Your task to perform on an android device: Clear the cart on ebay. Search for corsair k70 on ebay, select the first entry, add it to the cart, then select checkout. Image 0: 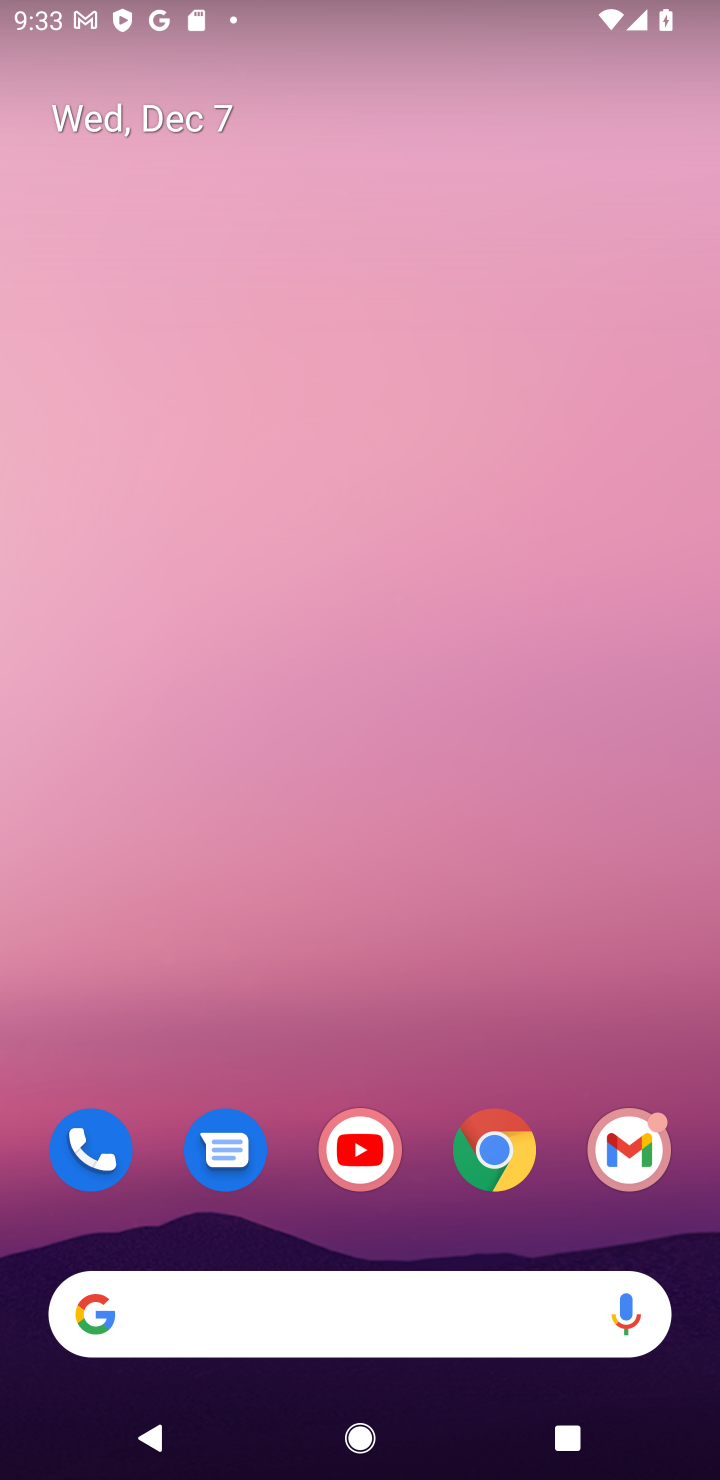
Step 0: click (473, 1133)
Your task to perform on an android device: Clear the cart on ebay. Search for corsair k70 on ebay, select the first entry, add it to the cart, then select checkout. Image 1: 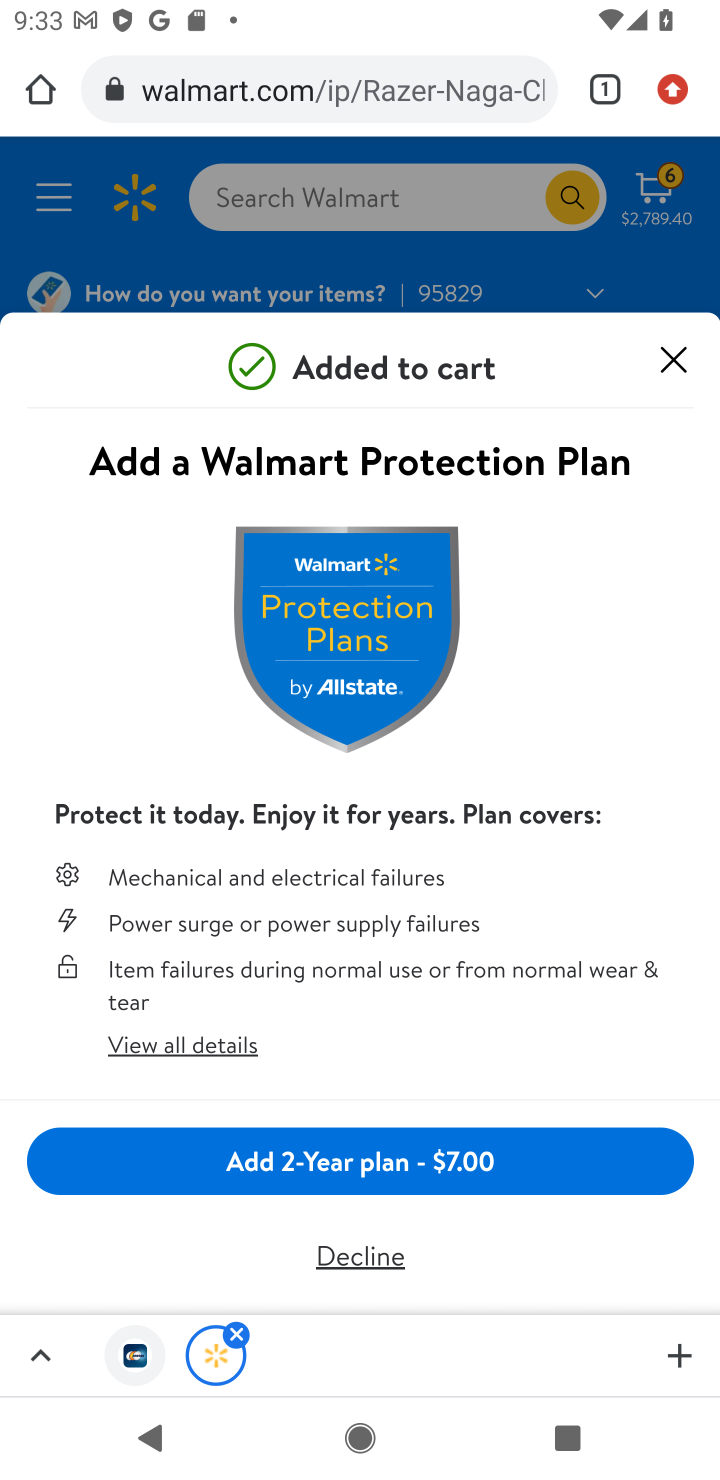
Step 1: click (679, 349)
Your task to perform on an android device: Clear the cart on ebay. Search for corsair k70 on ebay, select the first entry, add it to the cart, then select checkout. Image 2: 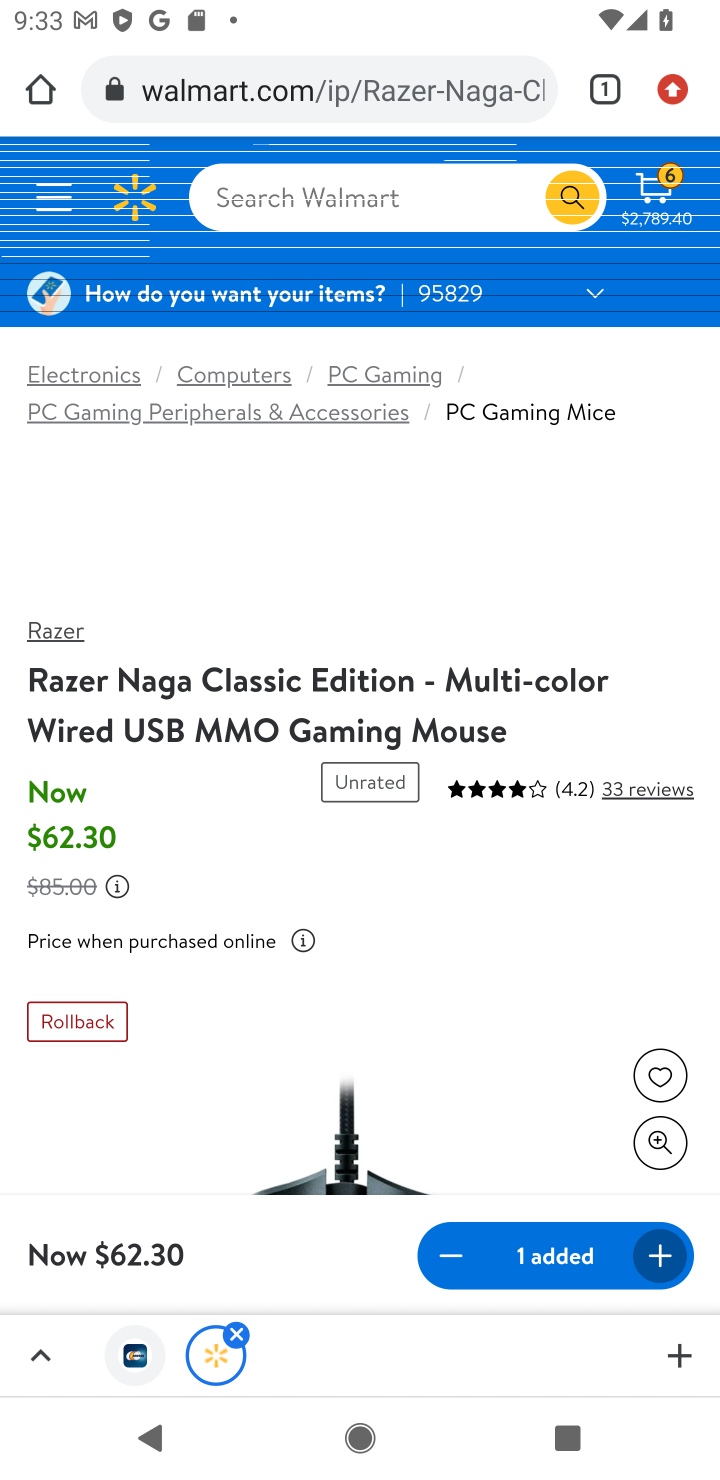
Step 2: click (350, 96)
Your task to perform on an android device: Clear the cart on ebay. Search for corsair k70 on ebay, select the first entry, add it to the cart, then select checkout. Image 3: 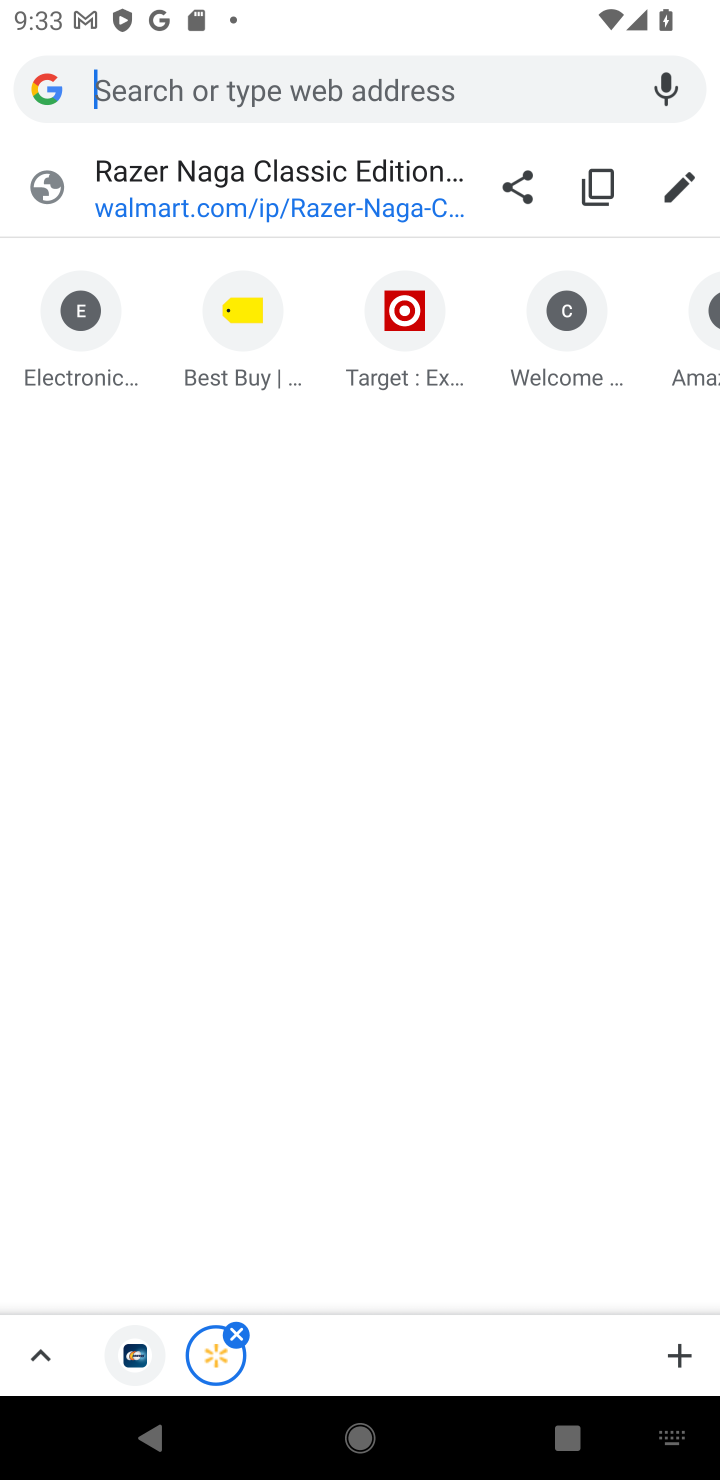
Step 3: type "ebay"
Your task to perform on an android device: Clear the cart on ebay. Search for corsair k70 on ebay, select the first entry, add it to the cart, then select checkout. Image 4: 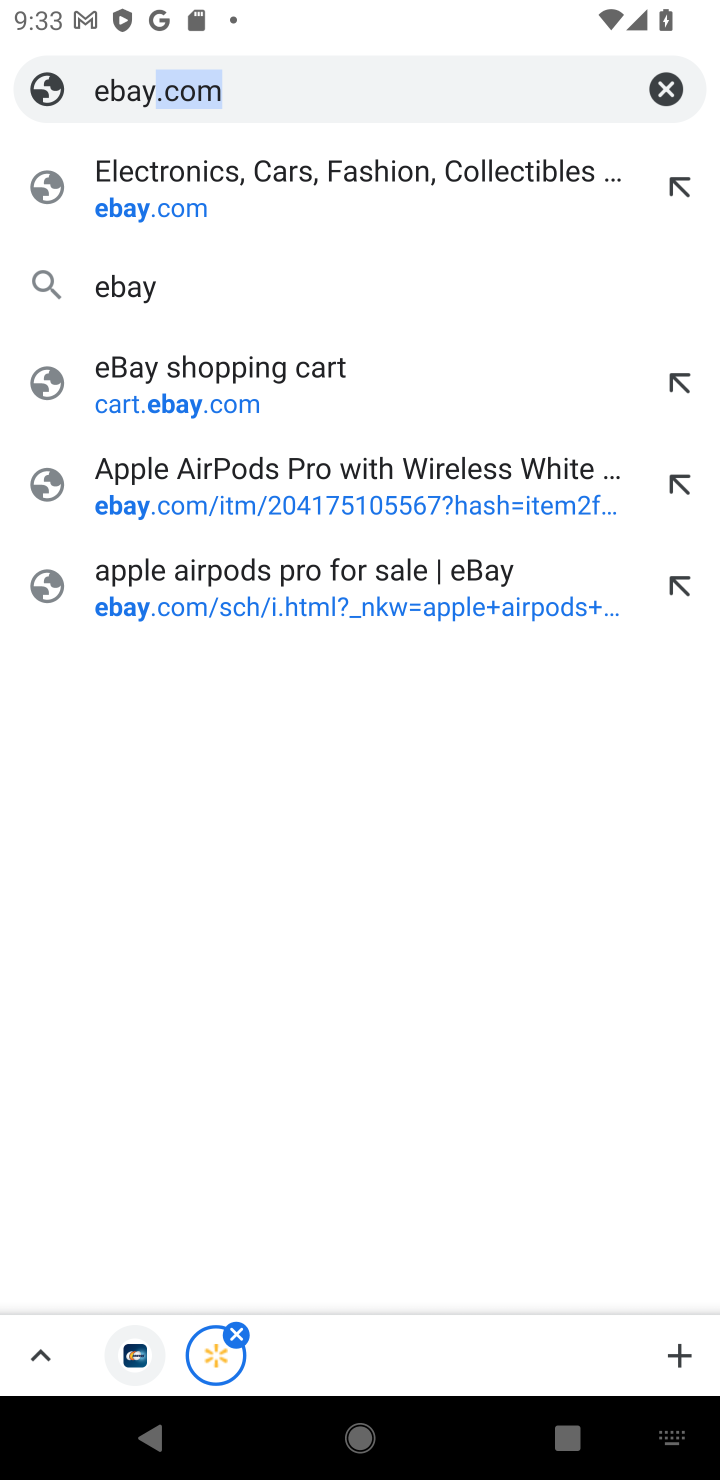
Step 4: click (411, 79)
Your task to perform on an android device: Clear the cart on ebay. Search for corsair k70 on ebay, select the first entry, add it to the cart, then select checkout. Image 5: 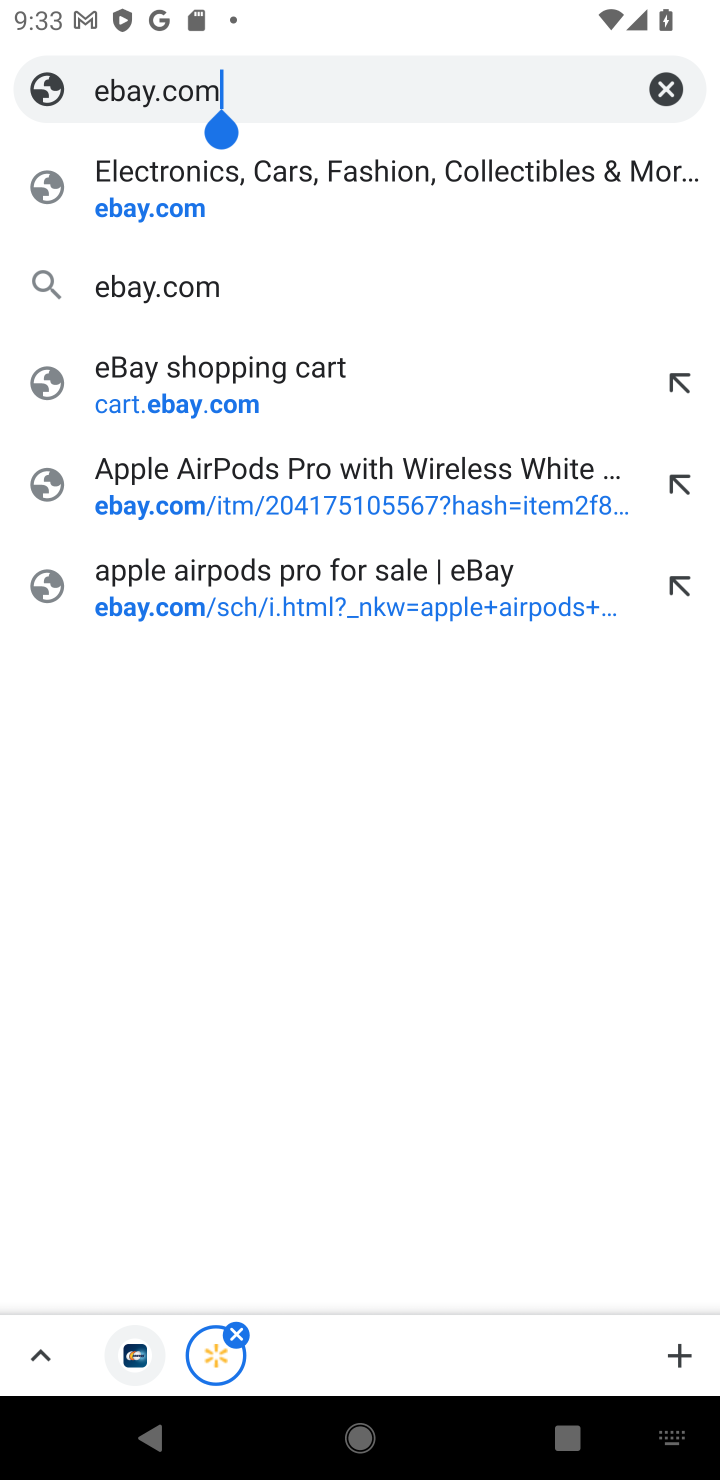
Step 5: click (183, 290)
Your task to perform on an android device: Clear the cart on ebay. Search for corsair k70 on ebay, select the first entry, add it to the cart, then select checkout. Image 6: 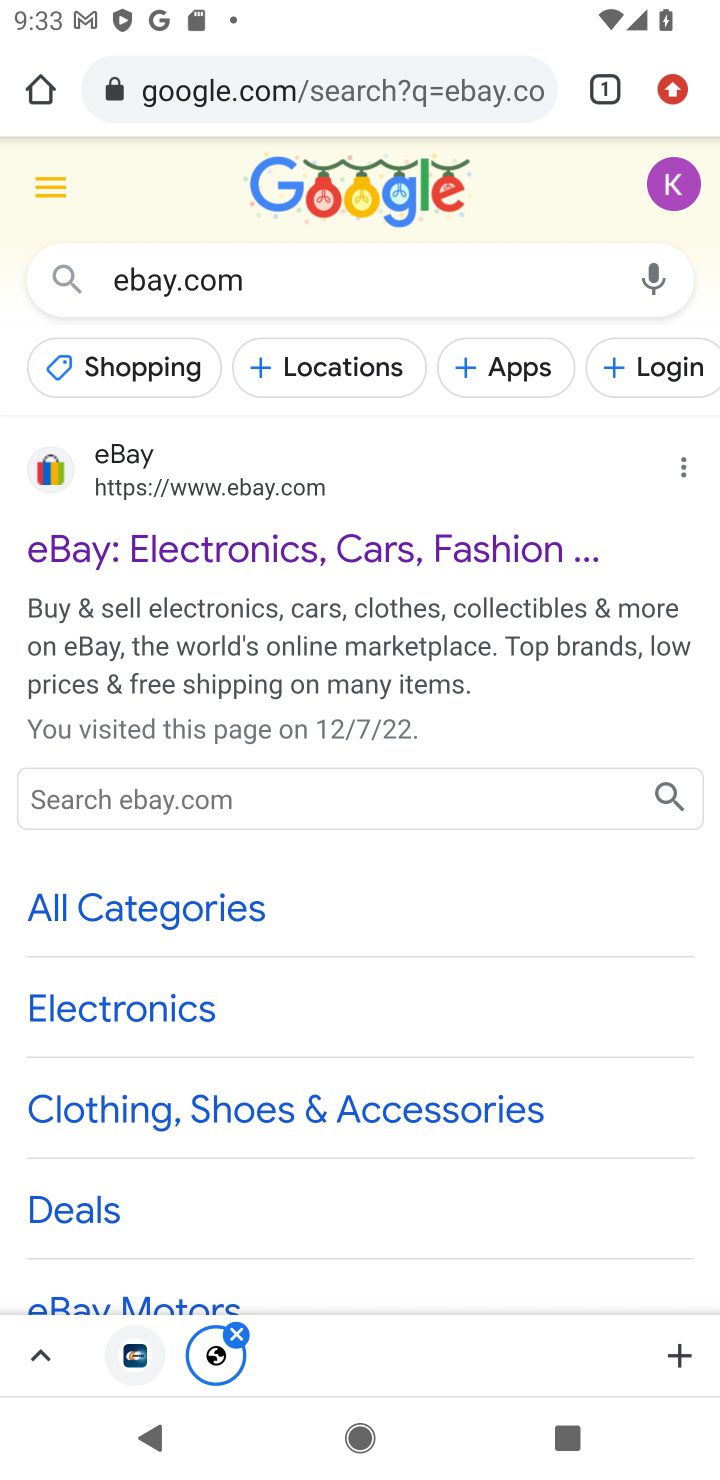
Step 6: click (231, 494)
Your task to perform on an android device: Clear the cart on ebay. Search for corsair k70 on ebay, select the first entry, add it to the cart, then select checkout. Image 7: 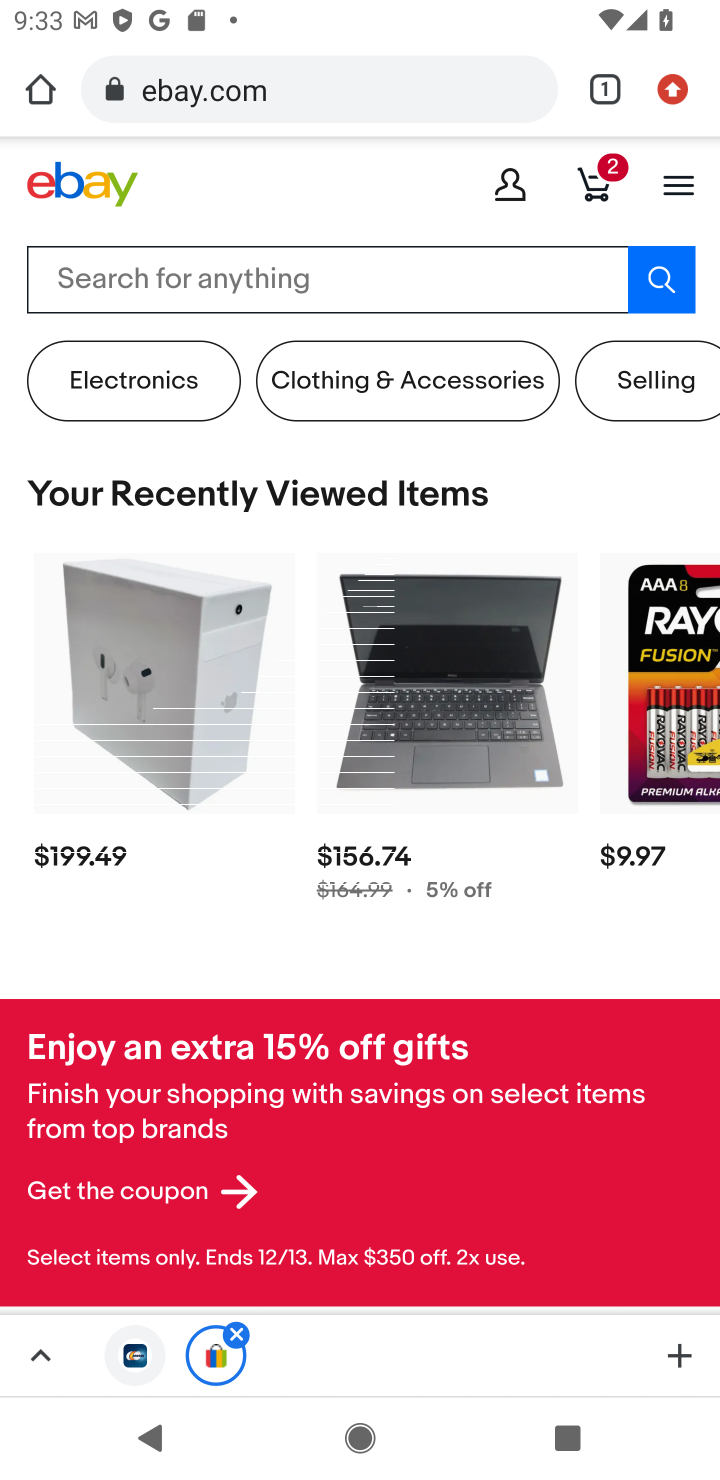
Step 7: click (591, 186)
Your task to perform on an android device: Clear the cart on ebay. Search for corsair k70 on ebay, select the first entry, add it to the cart, then select checkout. Image 8: 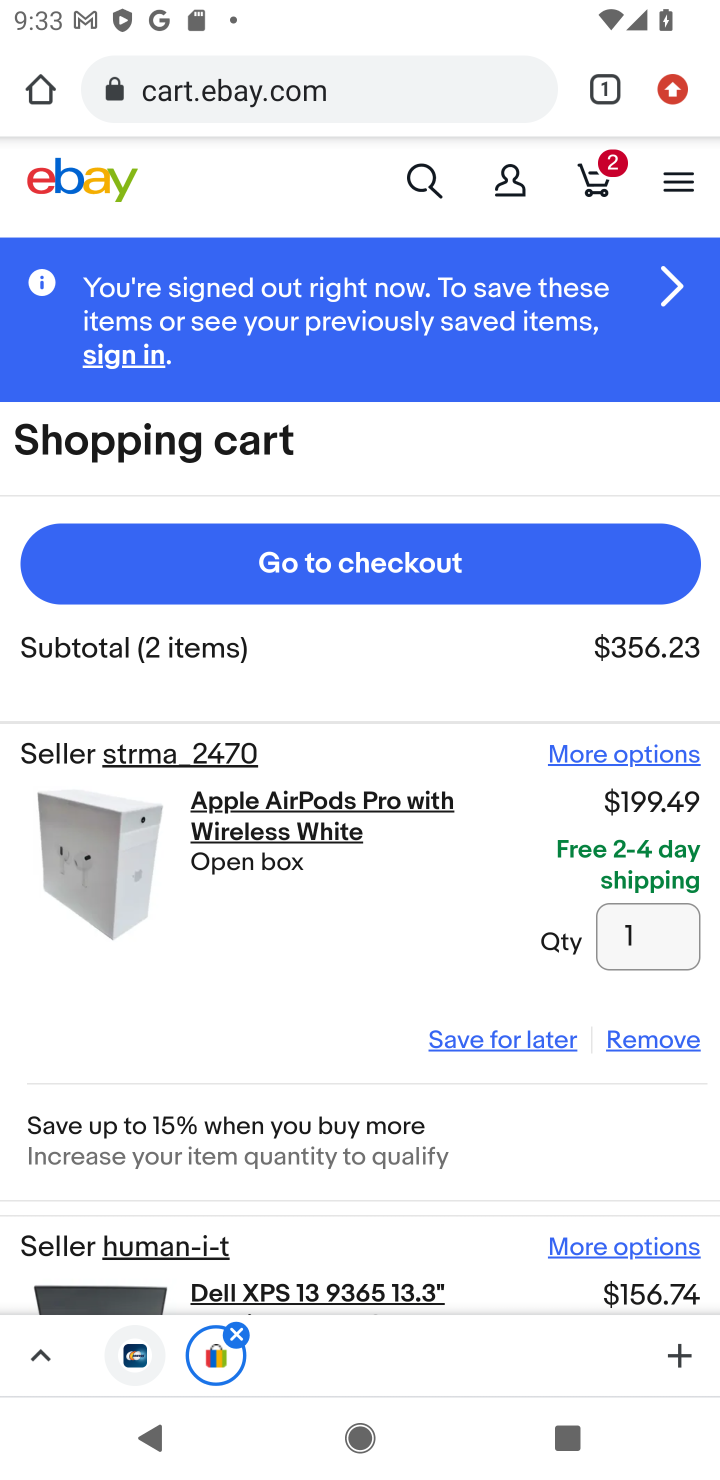
Step 8: click (640, 1042)
Your task to perform on an android device: Clear the cart on ebay. Search for corsair k70 on ebay, select the first entry, add it to the cart, then select checkout. Image 9: 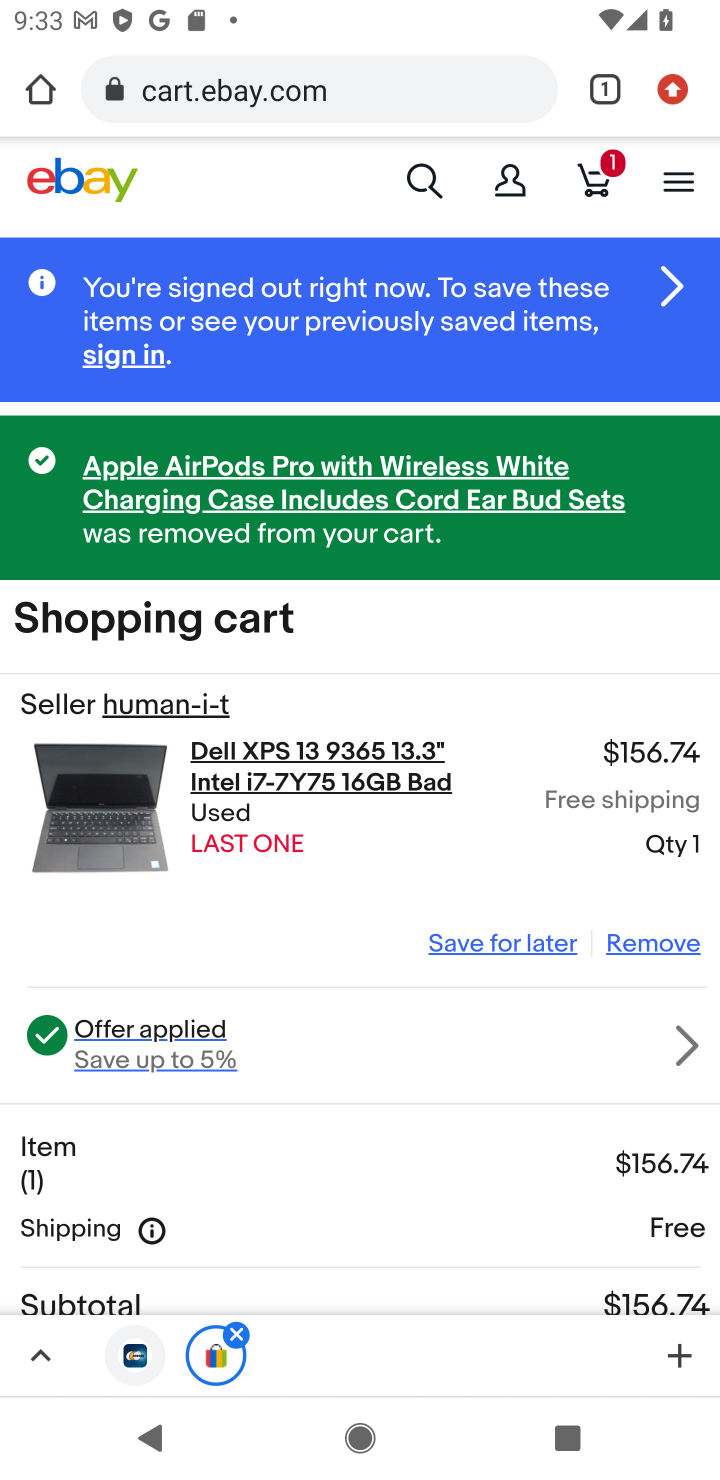
Step 9: click (630, 940)
Your task to perform on an android device: Clear the cart on ebay. Search for corsair k70 on ebay, select the first entry, add it to the cart, then select checkout. Image 10: 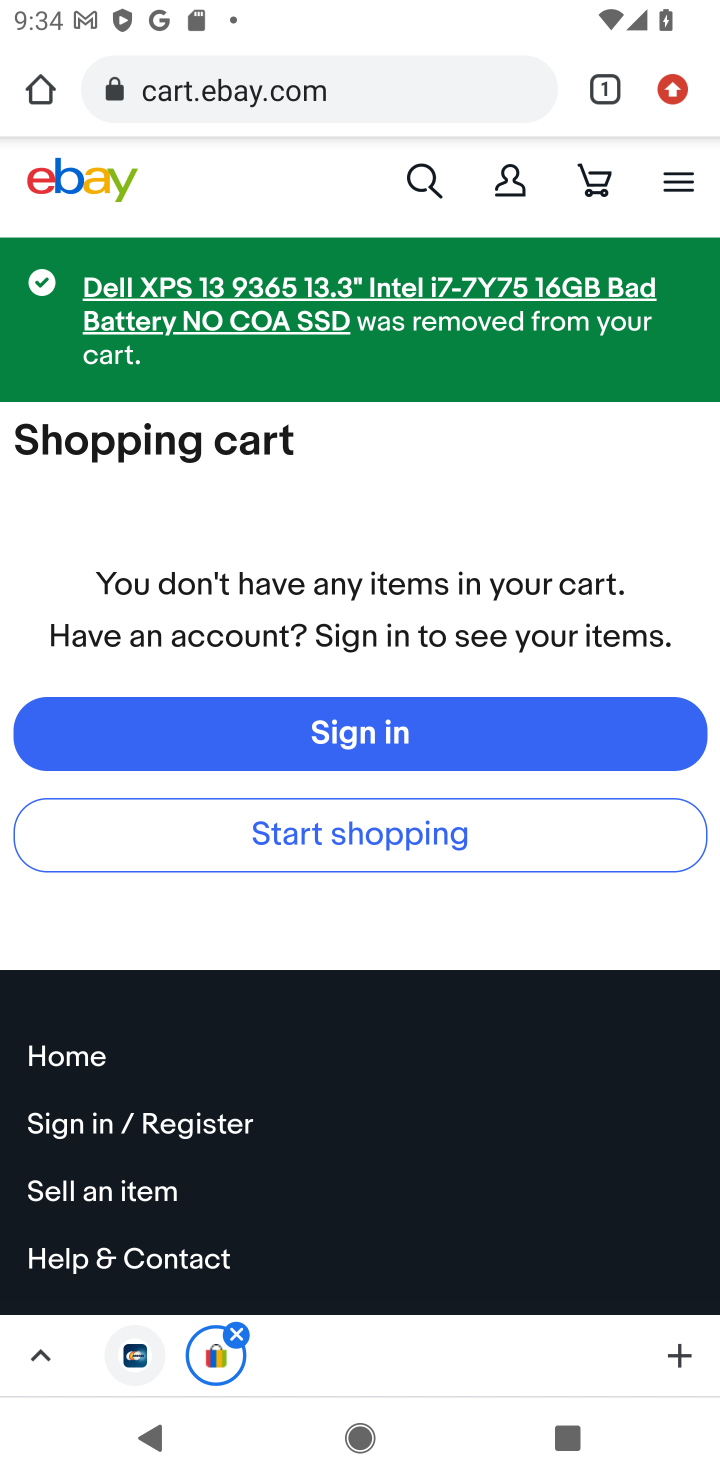
Step 10: click (419, 178)
Your task to perform on an android device: Clear the cart on ebay. Search for corsair k70 on ebay, select the first entry, add it to the cart, then select checkout. Image 11: 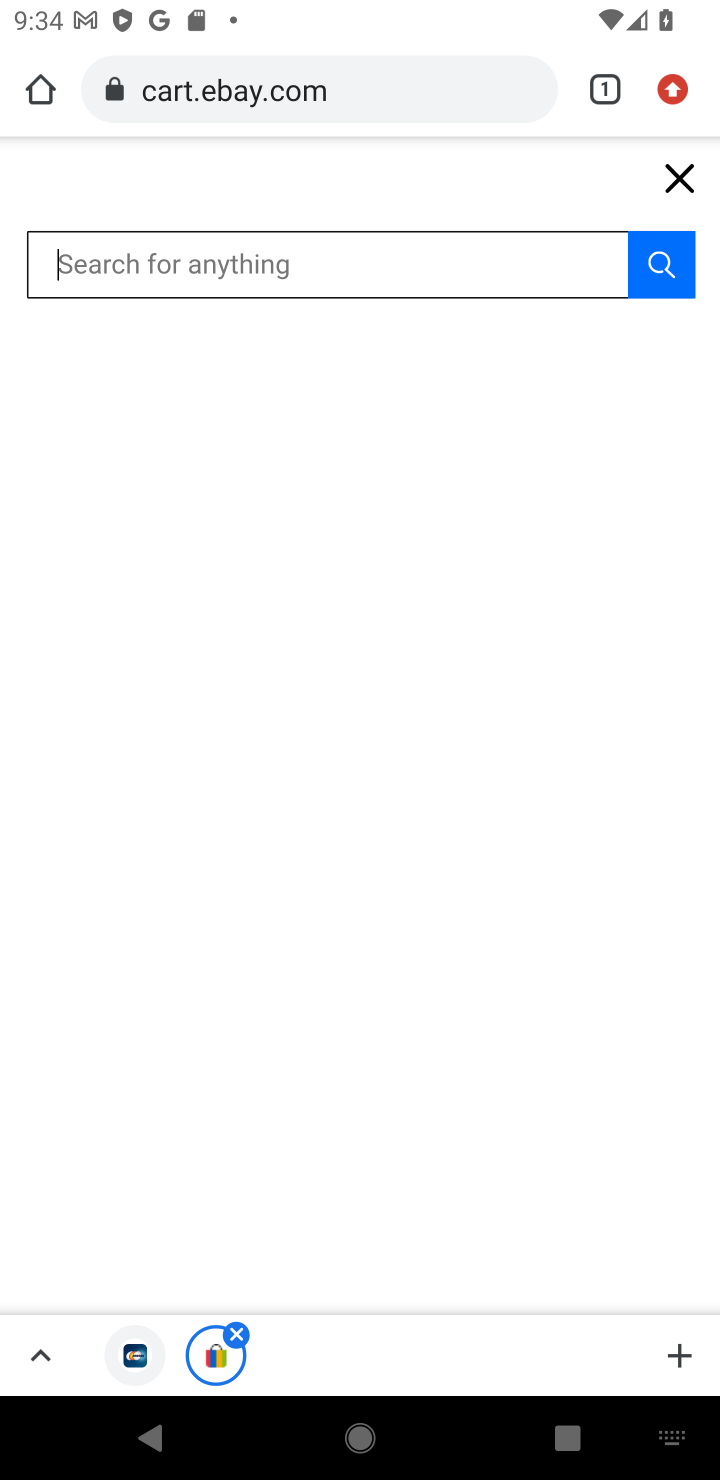
Step 11: type "corsair k70"
Your task to perform on an android device: Clear the cart on ebay. Search for corsair k70 on ebay, select the first entry, add it to the cart, then select checkout. Image 12: 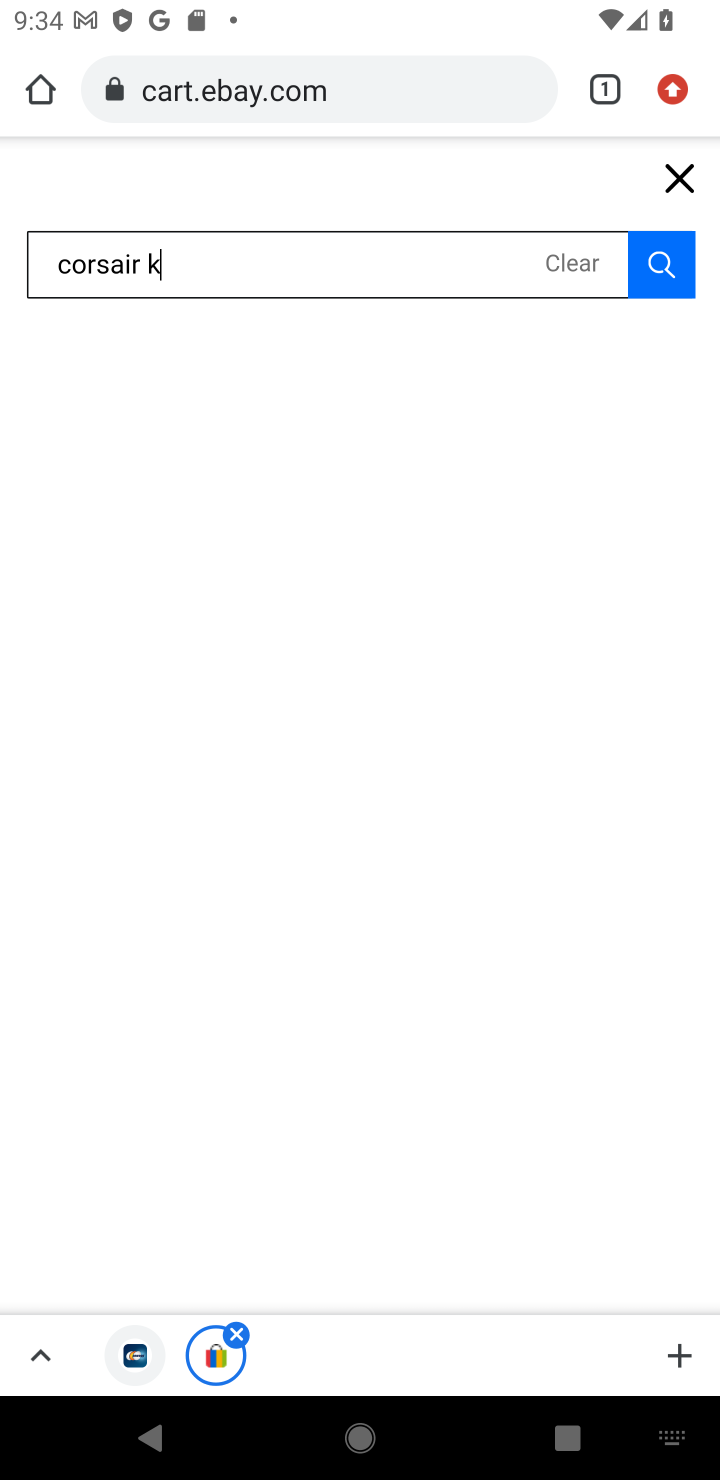
Step 12: press enter
Your task to perform on an android device: Clear the cart on ebay. Search for corsair k70 on ebay, select the first entry, add it to the cart, then select checkout. Image 13: 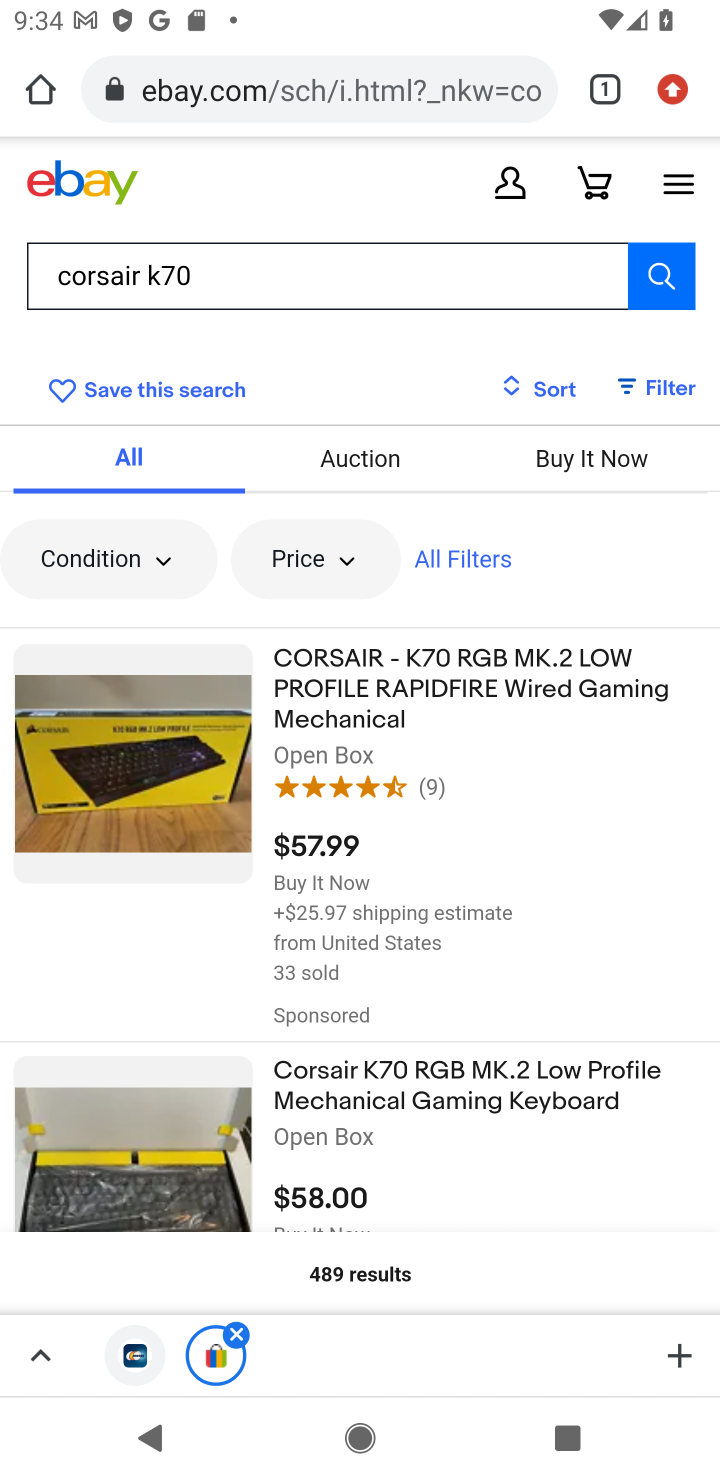
Step 13: click (102, 769)
Your task to perform on an android device: Clear the cart on ebay. Search for corsair k70 on ebay, select the first entry, add it to the cart, then select checkout. Image 14: 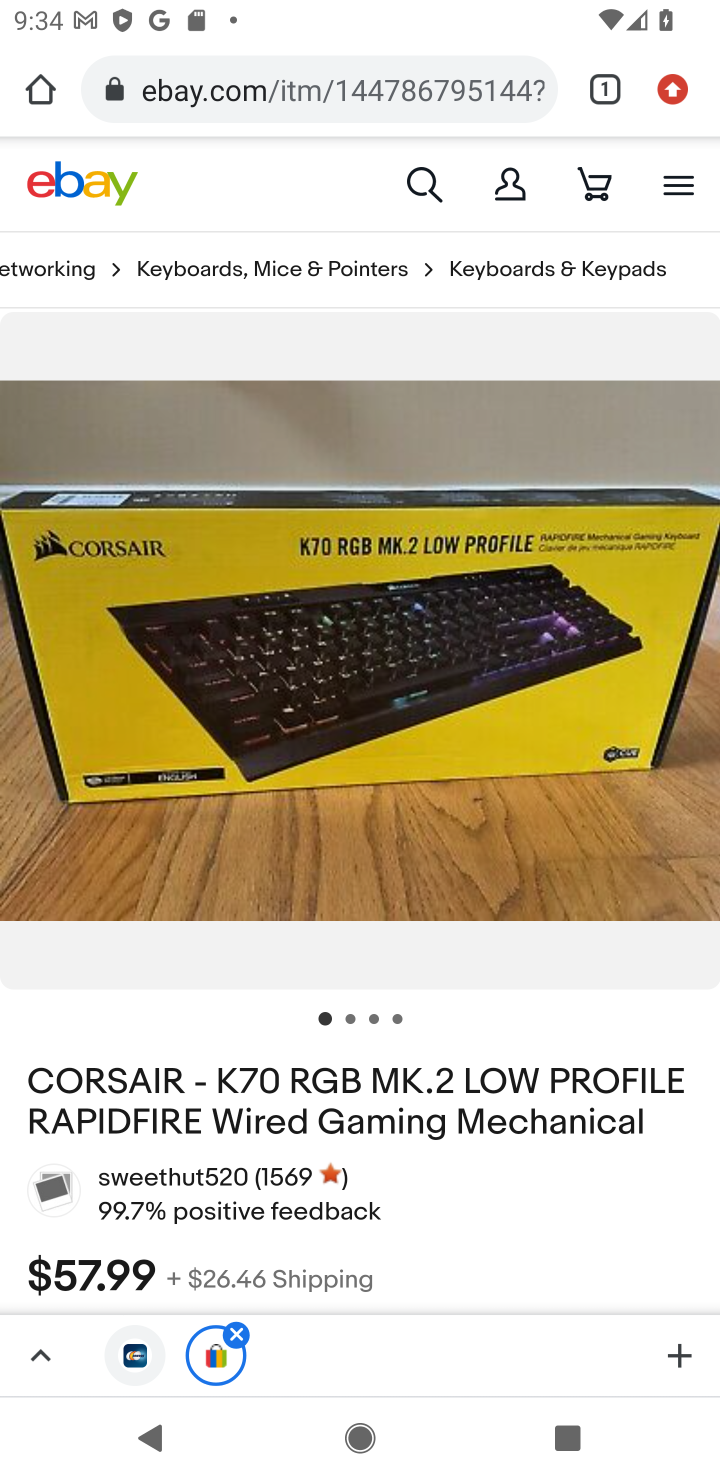
Step 14: drag from (562, 882) to (686, 310)
Your task to perform on an android device: Clear the cart on ebay. Search for corsair k70 on ebay, select the first entry, add it to the cart, then select checkout. Image 15: 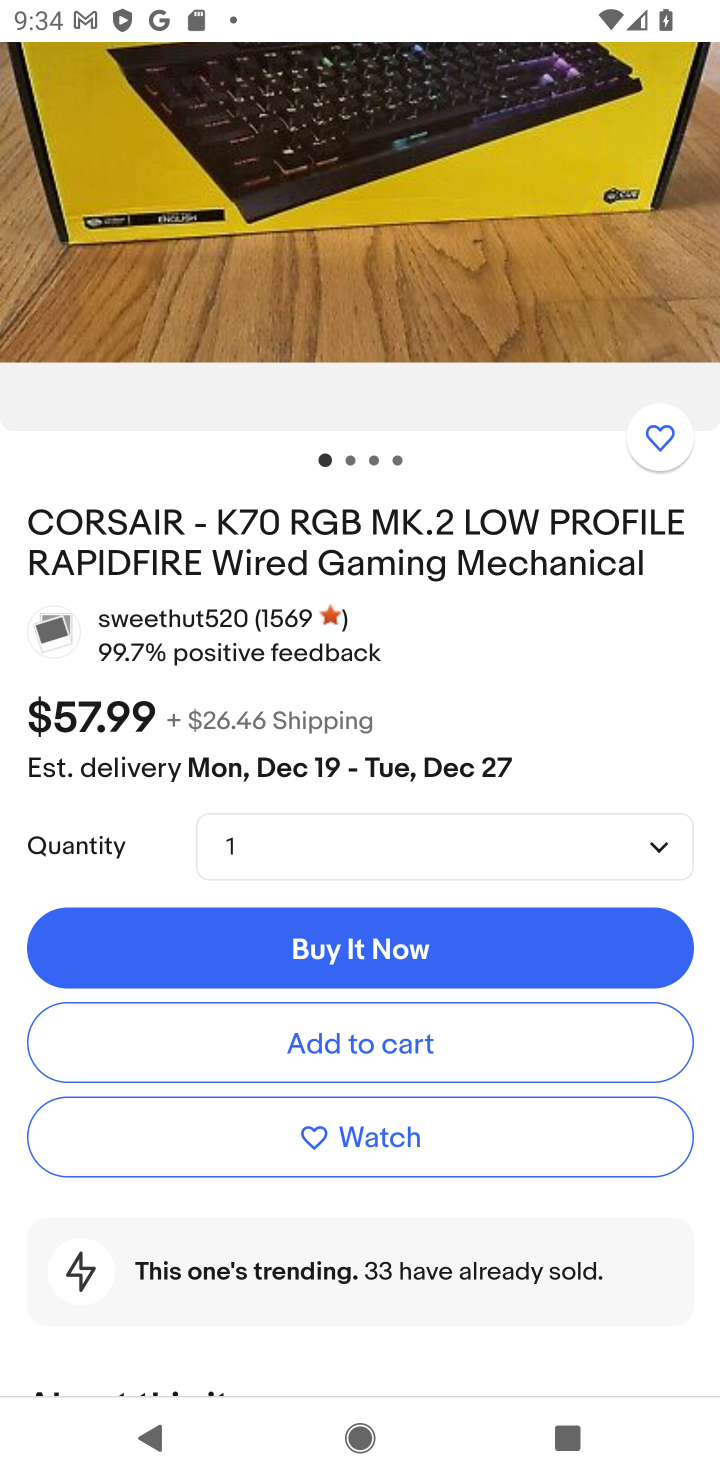
Step 15: click (363, 1033)
Your task to perform on an android device: Clear the cart on ebay. Search for corsair k70 on ebay, select the first entry, add it to the cart, then select checkout. Image 16: 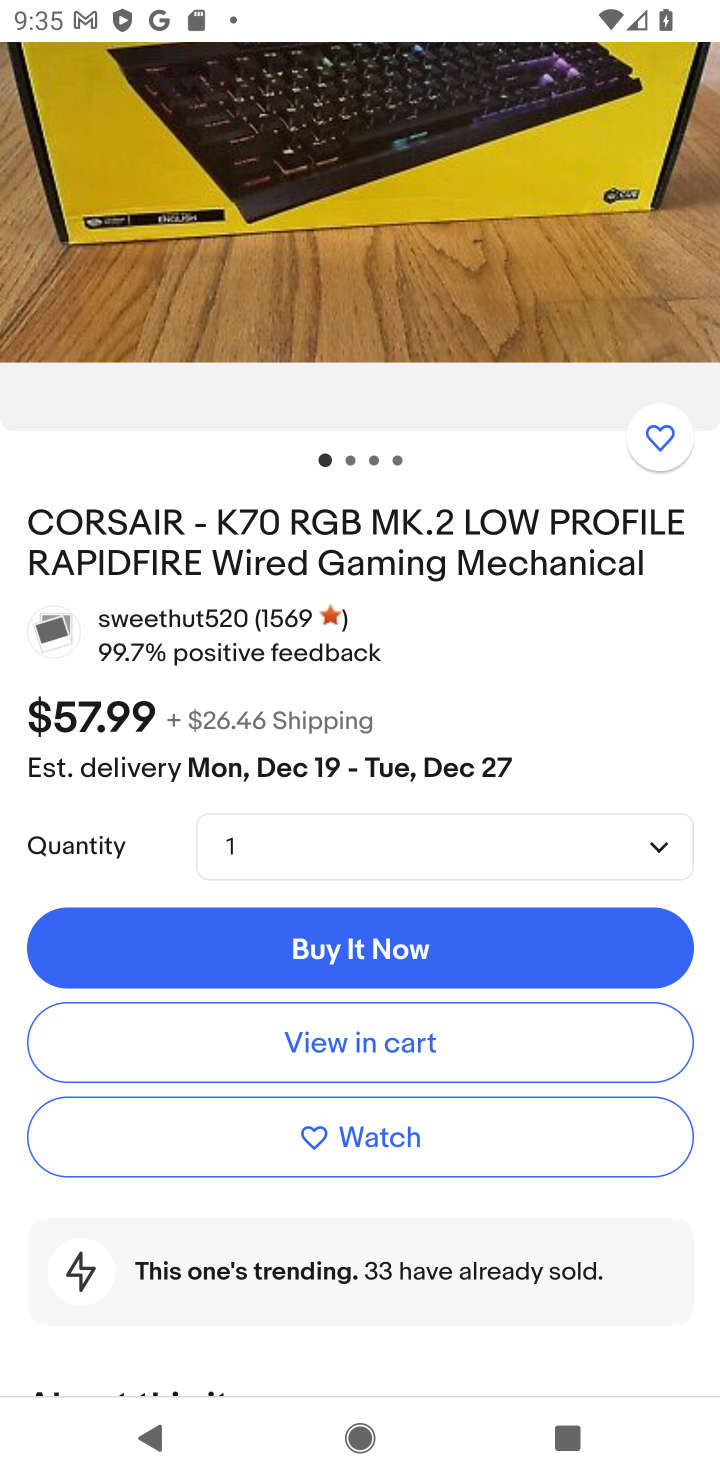
Step 16: click (434, 1042)
Your task to perform on an android device: Clear the cart on ebay. Search for corsair k70 on ebay, select the first entry, add it to the cart, then select checkout. Image 17: 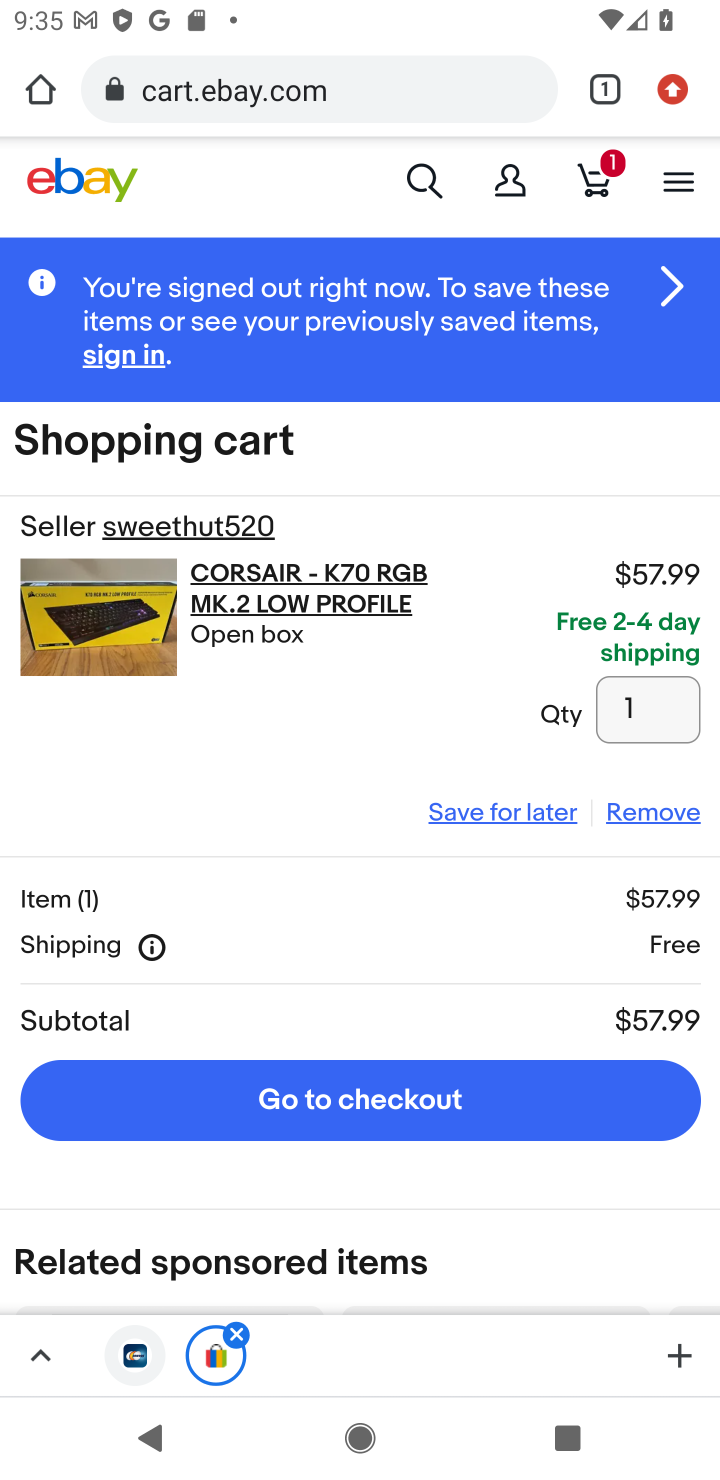
Step 17: click (403, 1091)
Your task to perform on an android device: Clear the cart on ebay. Search for corsair k70 on ebay, select the first entry, add it to the cart, then select checkout. Image 18: 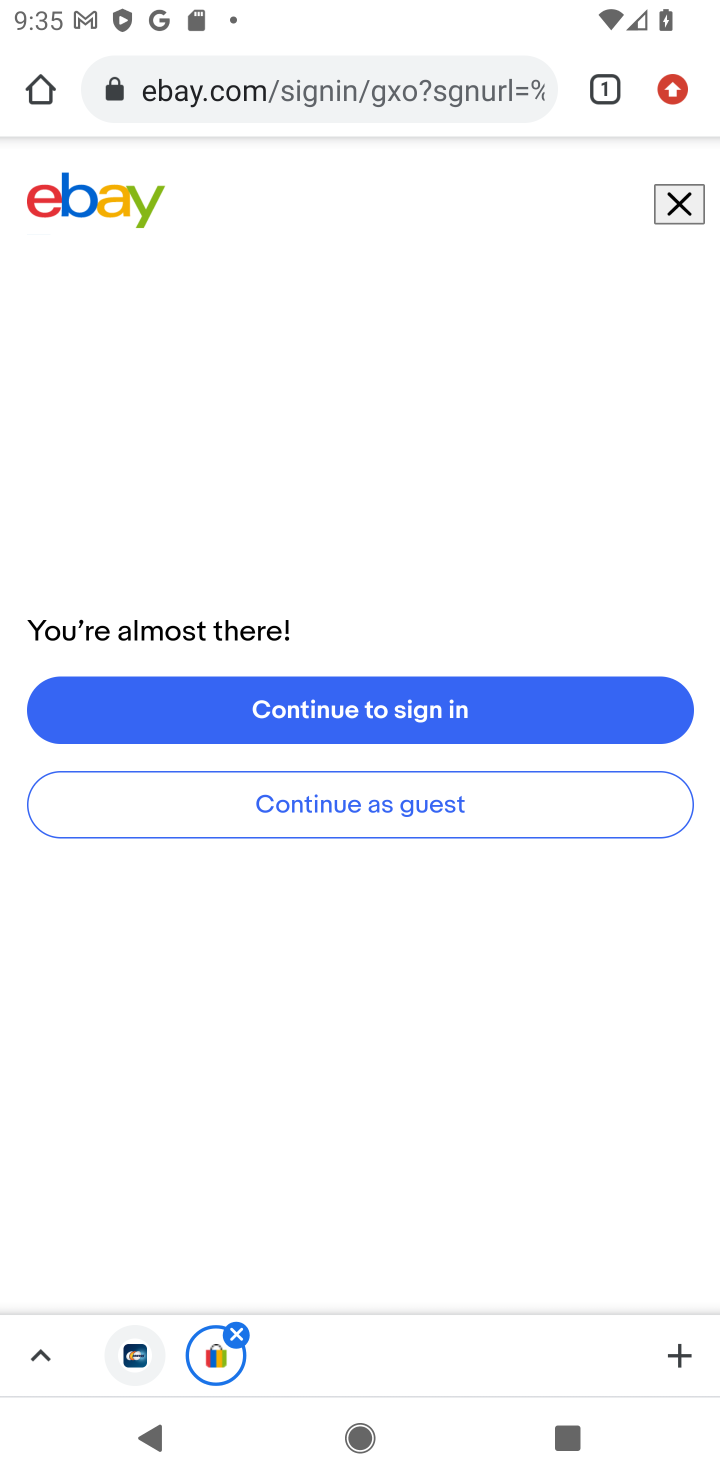
Step 18: task complete